Your task to perform on an android device: What's the weather like in Los Angeles? Image 0: 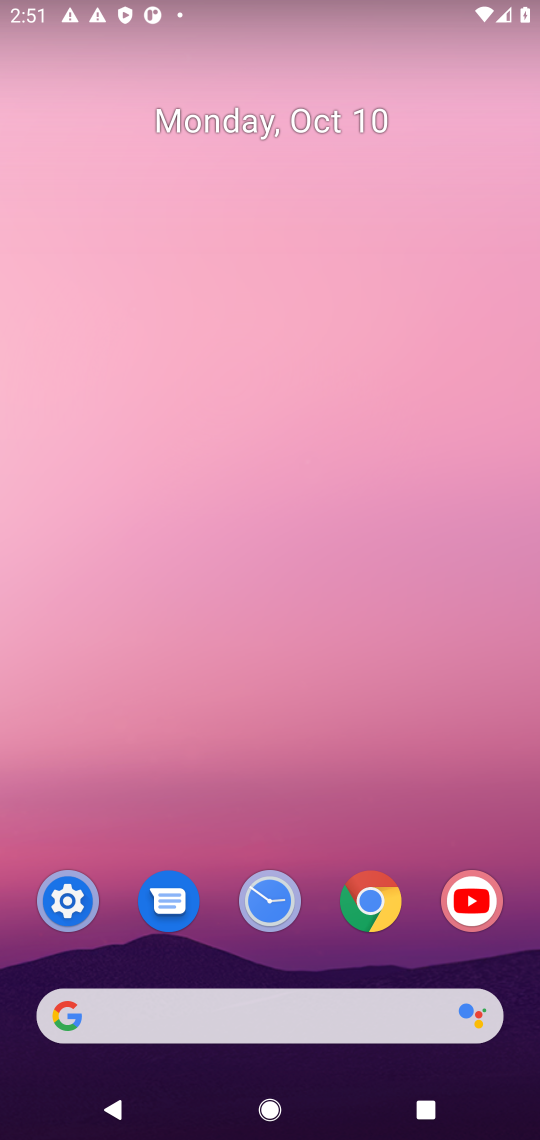
Step 0: drag from (251, 1018) to (333, 380)
Your task to perform on an android device: What's the weather like in Los Angeles? Image 1: 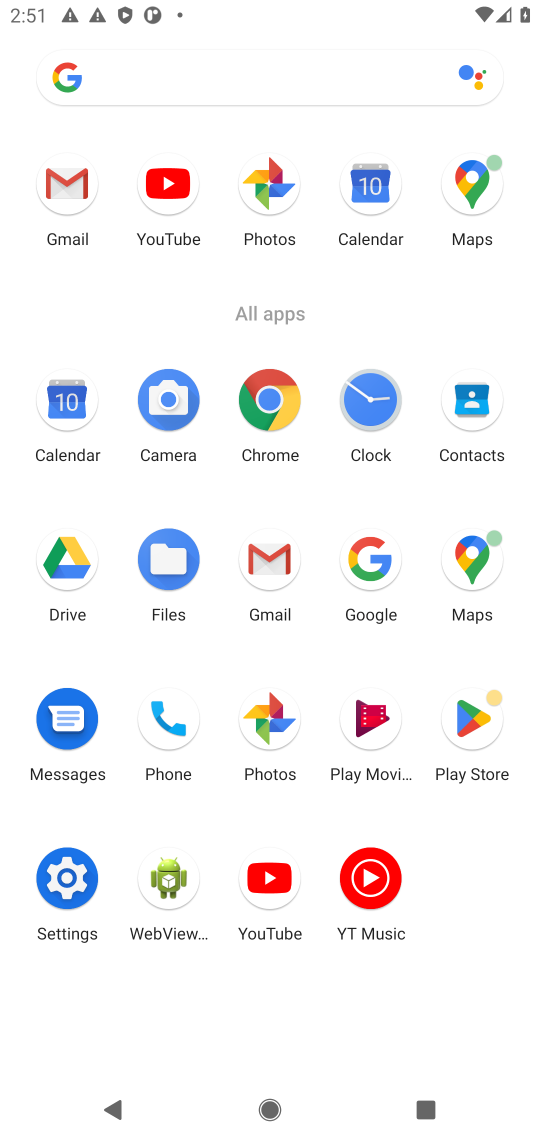
Step 1: click (363, 576)
Your task to perform on an android device: What's the weather like in Los Angeles? Image 2: 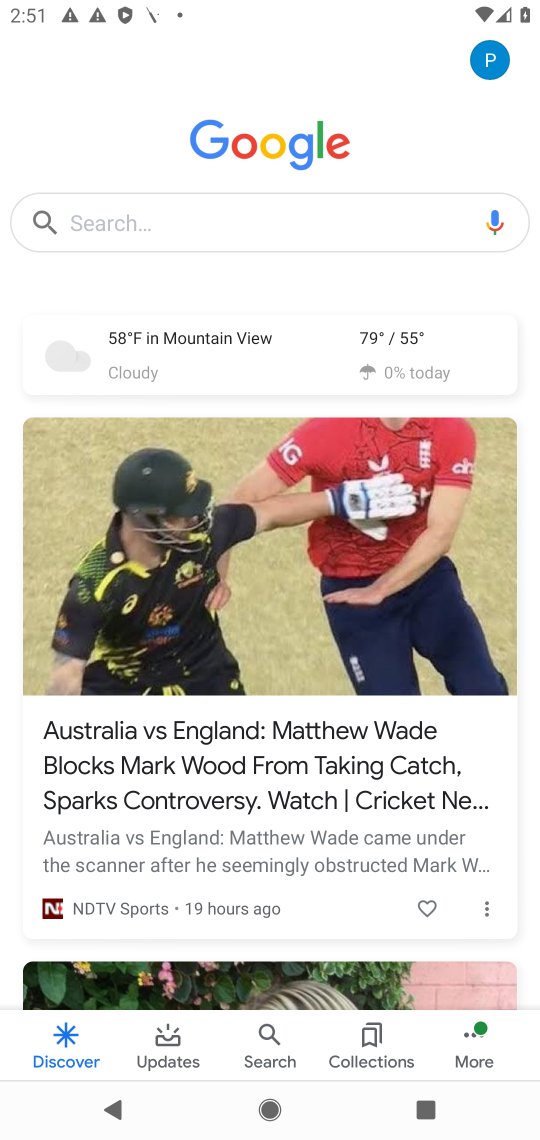
Step 2: click (294, 235)
Your task to perform on an android device: What's the weather like in Los Angeles? Image 3: 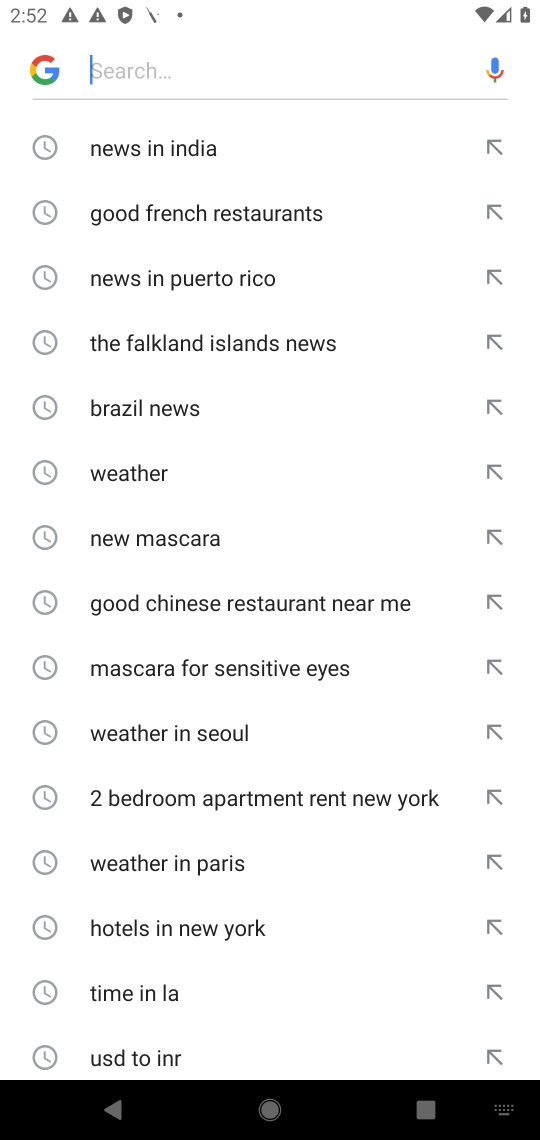
Step 3: type "What's the weather like in Los Angeles?"
Your task to perform on an android device: What's the weather like in Los Angeles? Image 4: 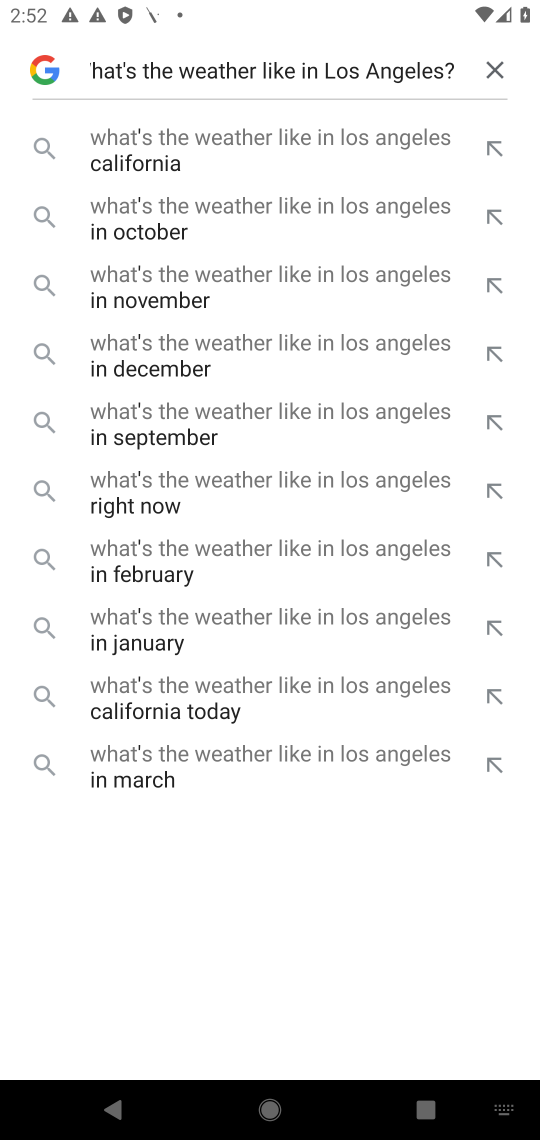
Step 4: click (210, 140)
Your task to perform on an android device: What's the weather like in Los Angeles? Image 5: 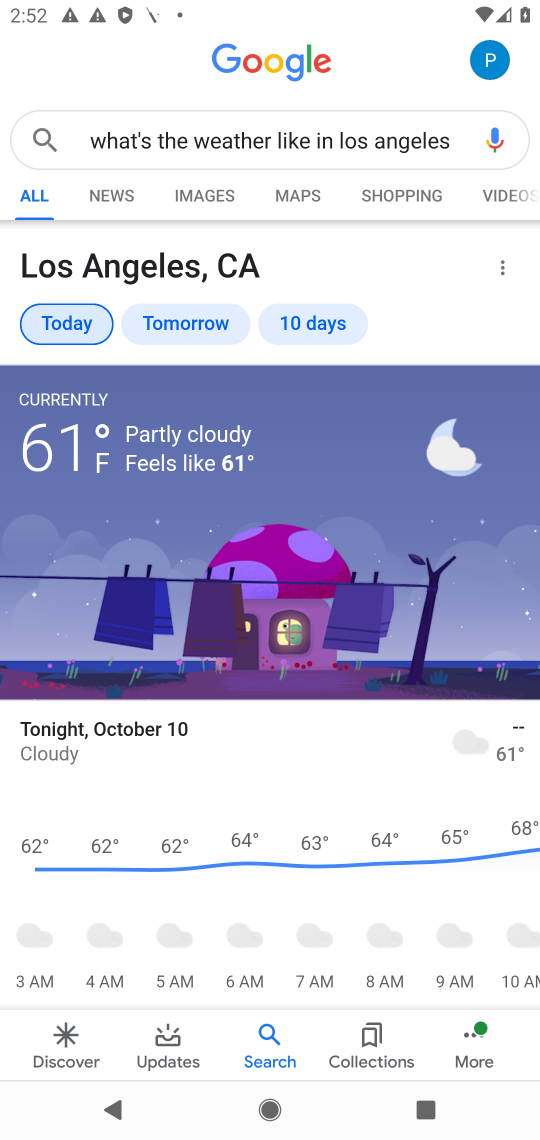
Step 5: task complete